Your task to perform on an android device: turn off wifi Image 0: 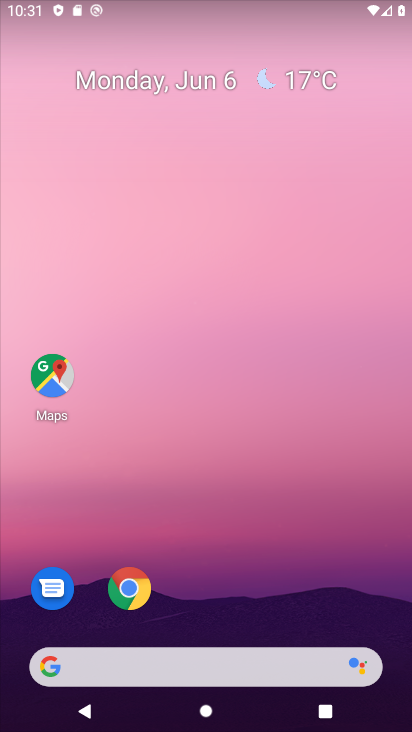
Step 0: drag from (215, 627) to (328, 120)
Your task to perform on an android device: turn off wifi Image 1: 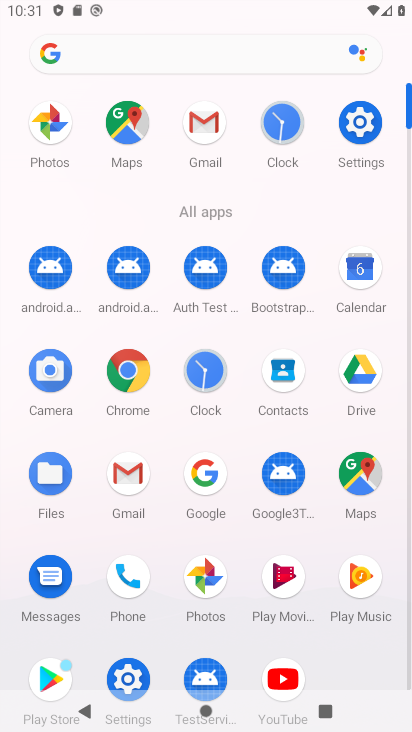
Step 1: click (132, 676)
Your task to perform on an android device: turn off wifi Image 2: 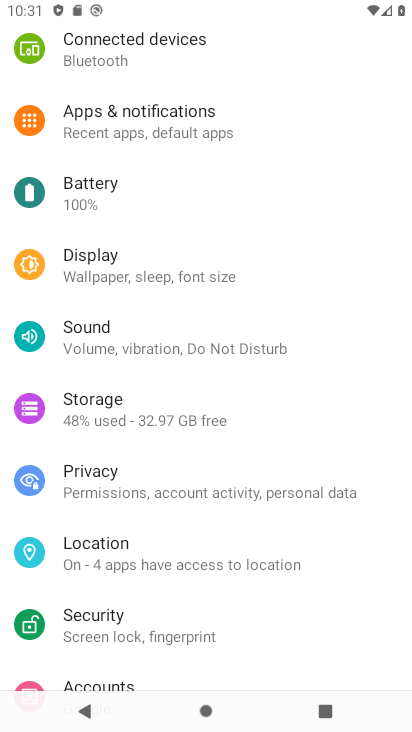
Step 2: drag from (195, 350) to (133, 691)
Your task to perform on an android device: turn off wifi Image 3: 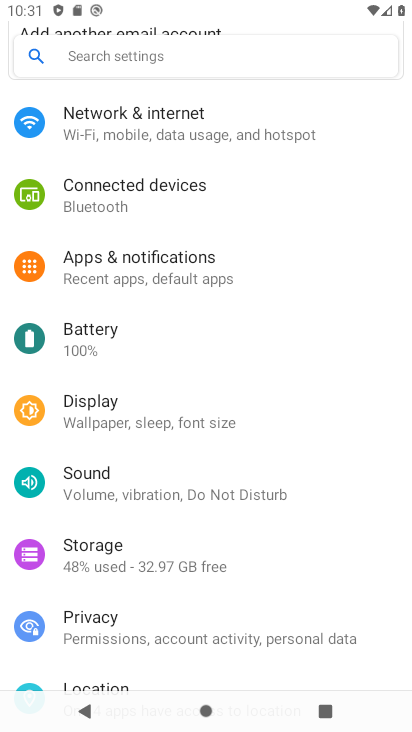
Step 3: click (230, 128)
Your task to perform on an android device: turn off wifi Image 4: 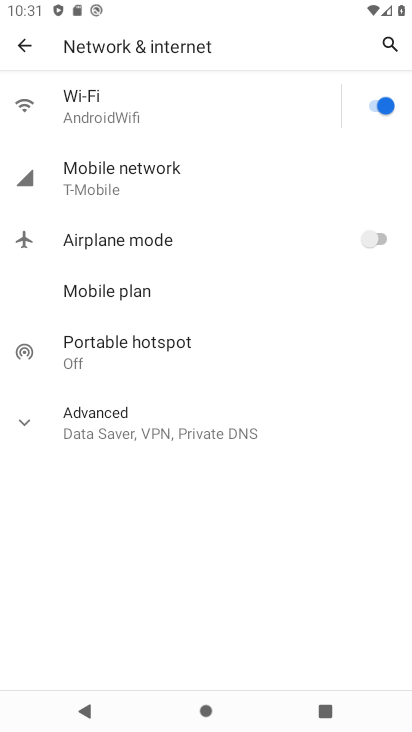
Step 4: click (379, 97)
Your task to perform on an android device: turn off wifi Image 5: 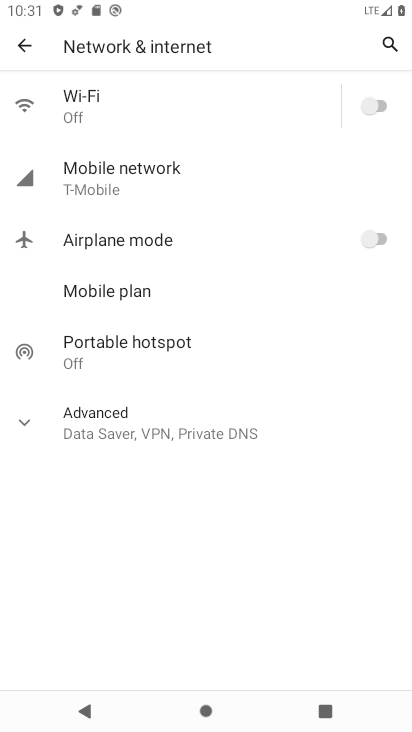
Step 5: task complete